Your task to perform on an android device: Go to eBay Image 0: 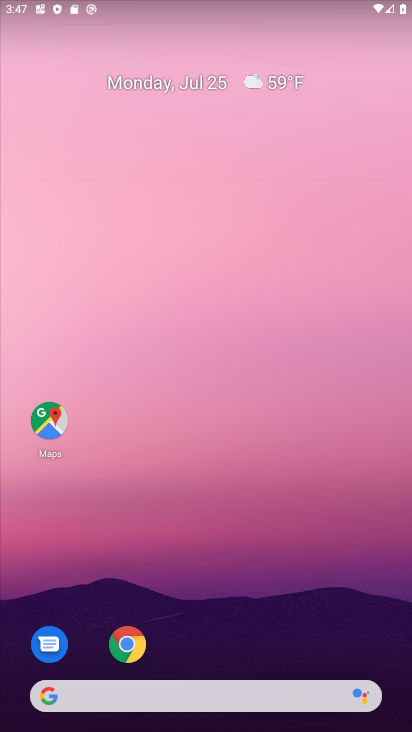
Step 0: drag from (177, 680) to (155, 170)
Your task to perform on an android device: Go to eBay Image 1: 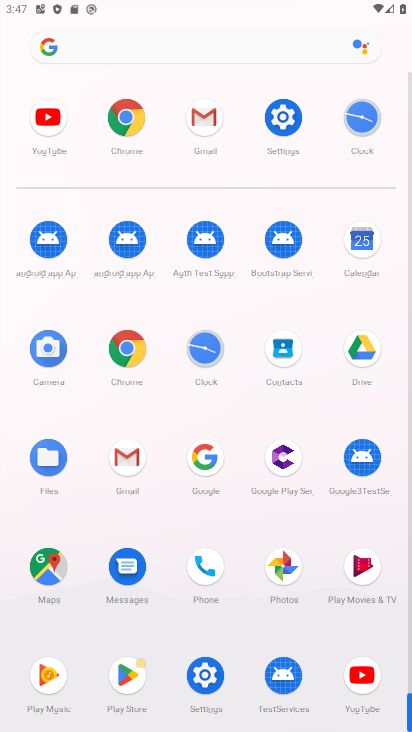
Step 1: click (213, 457)
Your task to perform on an android device: Go to eBay Image 2: 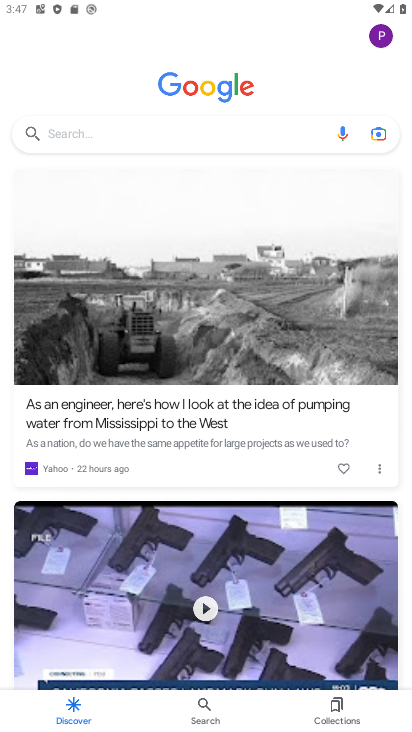
Step 2: drag from (131, 136) to (48, 136)
Your task to perform on an android device: Go to eBay Image 3: 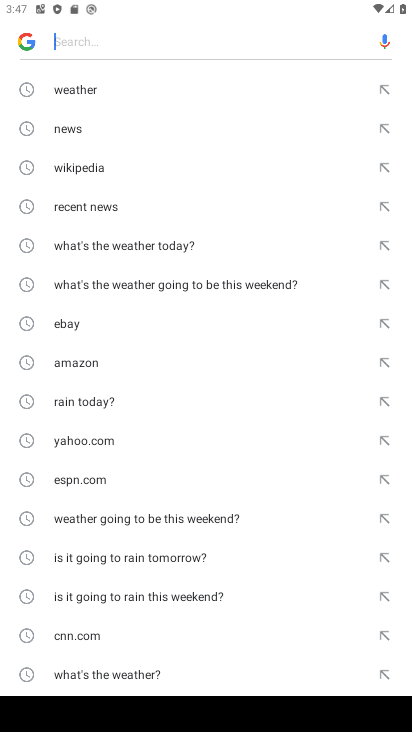
Step 3: drag from (155, 608) to (155, 176)
Your task to perform on an android device: Go to eBay Image 4: 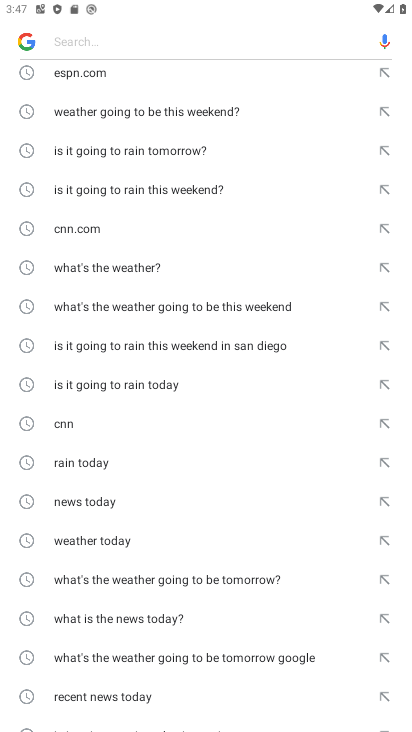
Step 4: drag from (164, 613) to (157, 201)
Your task to perform on an android device: Go to eBay Image 5: 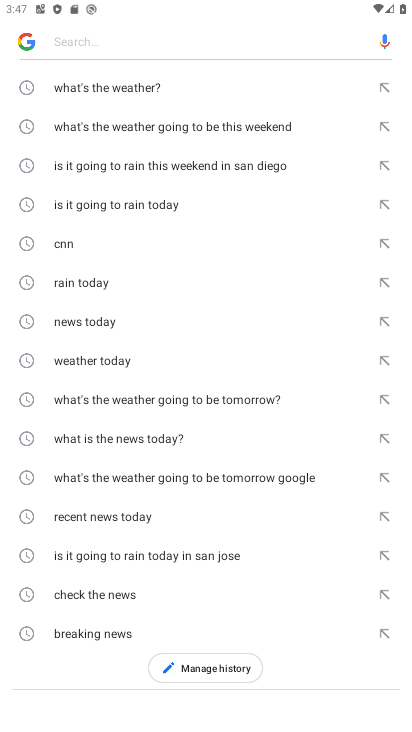
Step 5: drag from (140, 165) to (178, 480)
Your task to perform on an android device: Go to eBay Image 6: 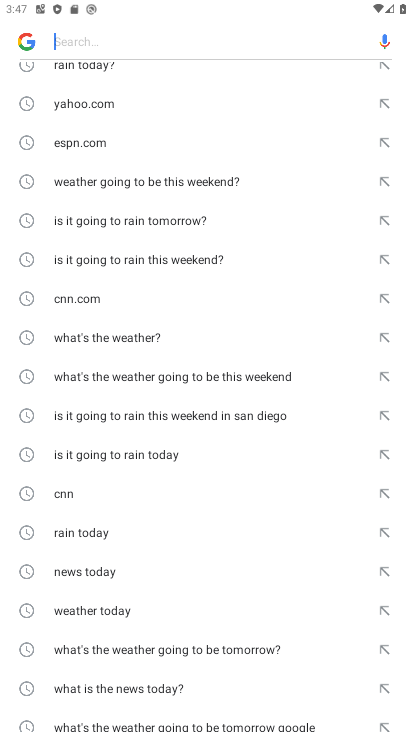
Step 6: drag from (113, 102) to (166, 448)
Your task to perform on an android device: Go to eBay Image 7: 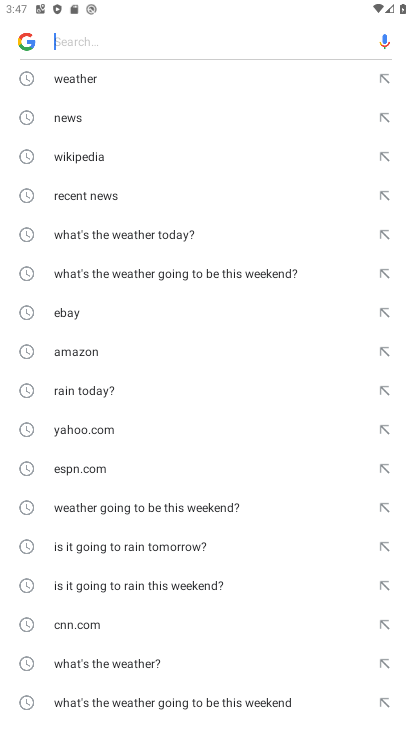
Step 7: click (82, 308)
Your task to perform on an android device: Go to eBay Image 8: 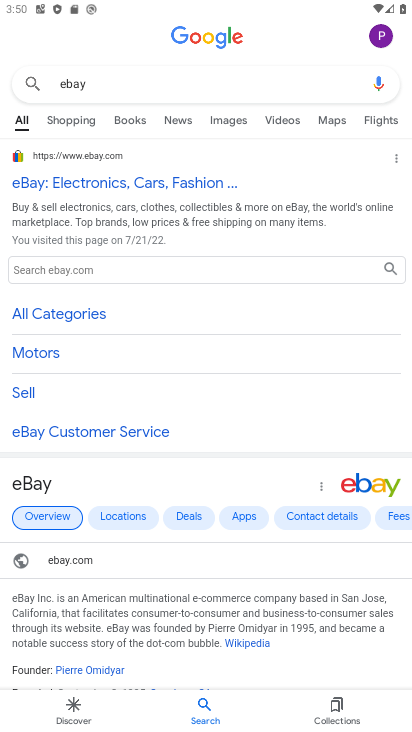
Step 8: task complete